Your task to perform on an android device: Go to internet settings Image 0: 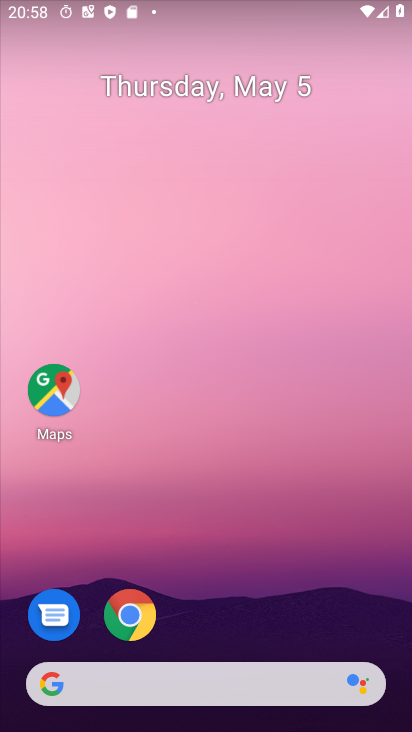
Step 0: drag from (246, 532) to (284, 0)
Your task to perform on an android device: Go to internet settings Image 1: 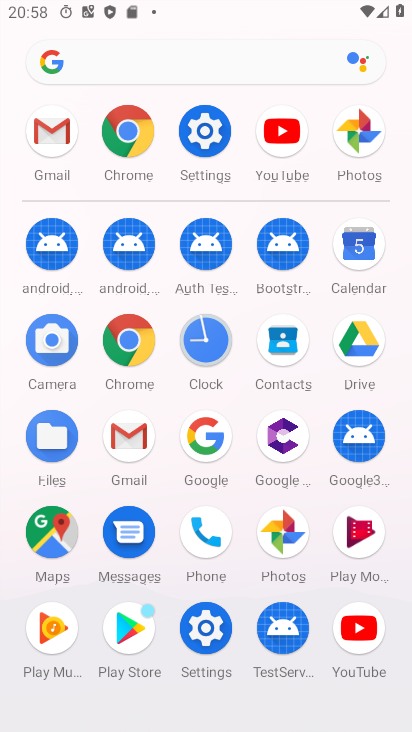
Step 1: click (202, 631)
Your task to perform on an android device: Go to internet settings Image 2: 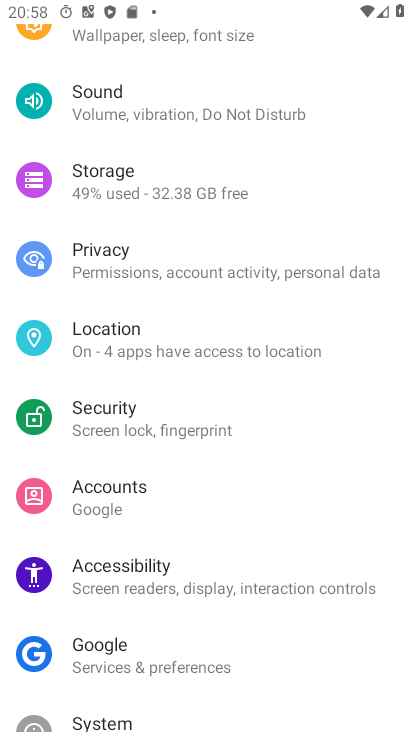
Step 2: drag from (192, 124) to (201, 686)
Your task to perform on an android device: Go to internet settings Image 3: 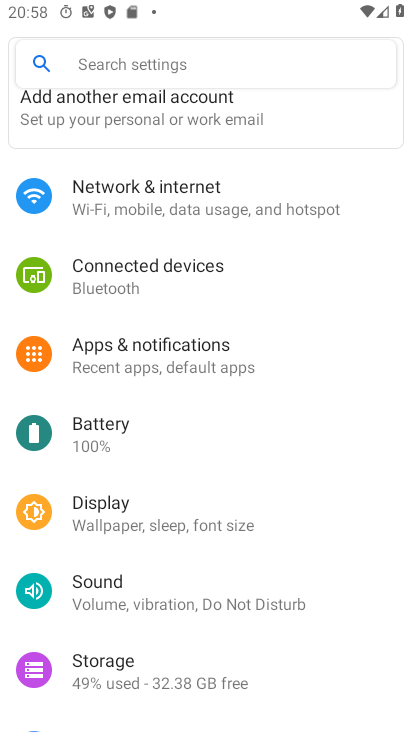
Step 3: drag from (205, 156) to (153, 729)
Your task to perform on an android device: Go to internet settings Image 4: 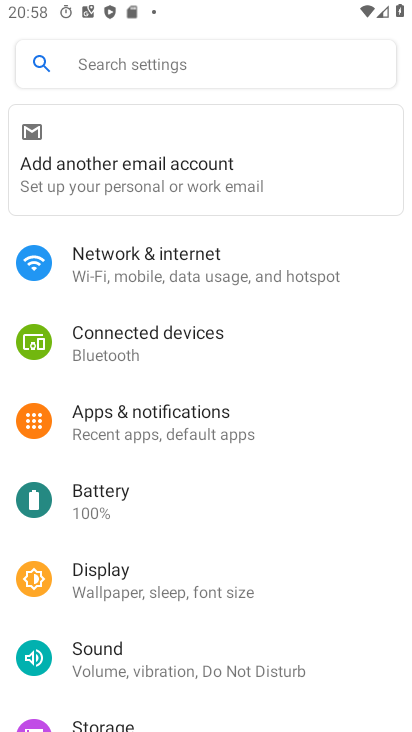
Step 4: click (185, 283)
Your task to perform on an android device: Go to internet settings Image 5: 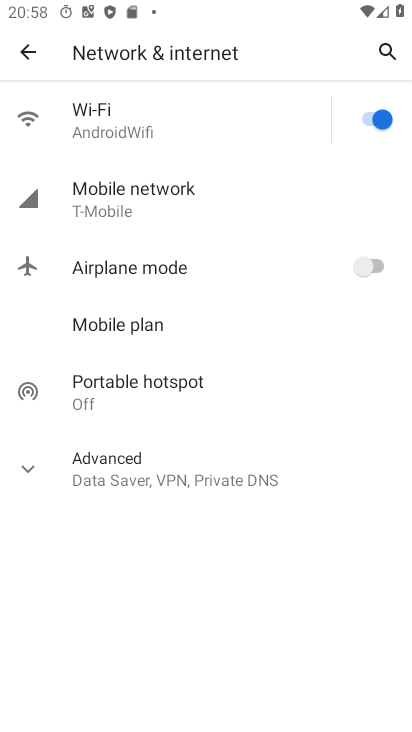
Step 5: task complete